Your task to perform on an android device: Go to notification settings Image 0: 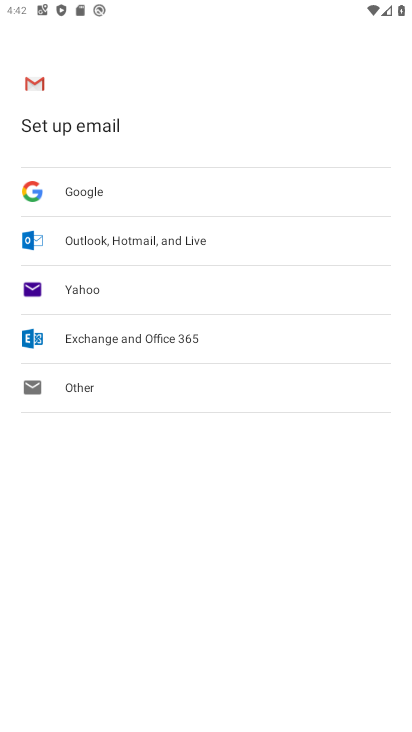
Step 0: press home button
Your task to perform on an android device: Go to notification settings Image 1: 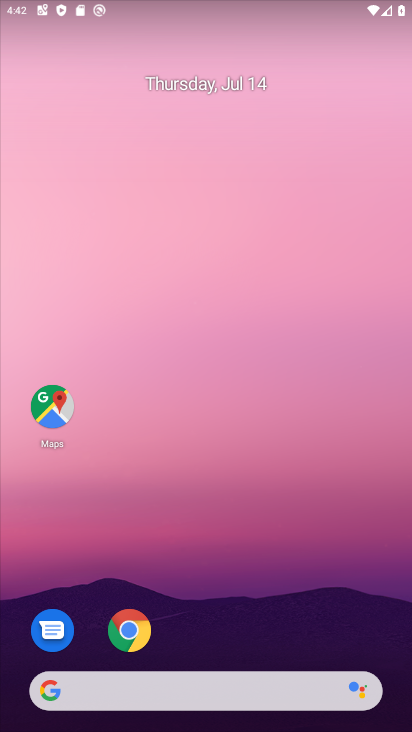
Step 1: drag from (272, 651) to (340, 47)
Your task to perform on an android device: Go to notification settings Image 2: 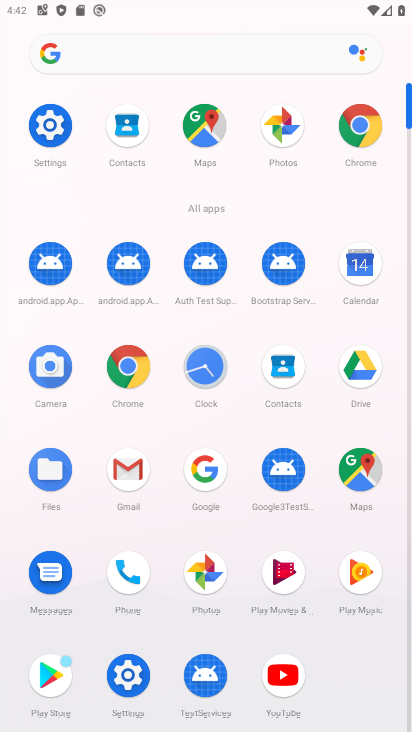
Step 2: click (44, 120)
Your task to perform on an android device: Go to notification settings Image 3: 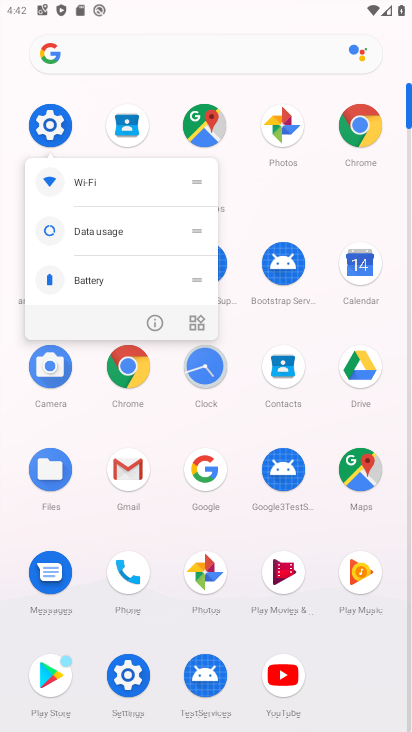
Step 3: click (45, 121)
Your task to perform on an android device: Go to notification settings Image 4: 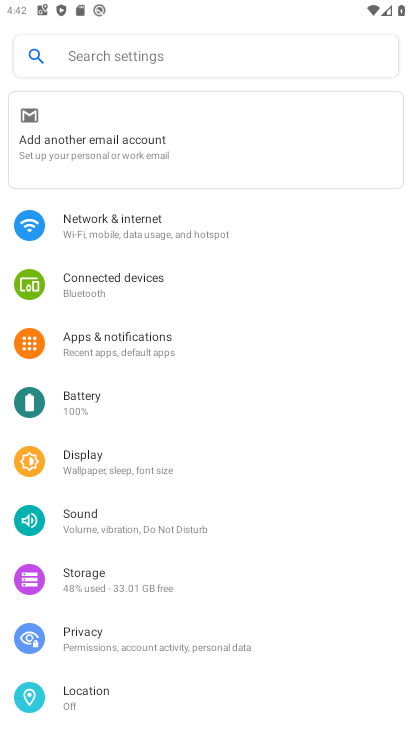
Step 4: click (192, 357)
Your task to perform on an android device: Go to notification settings Image 5: 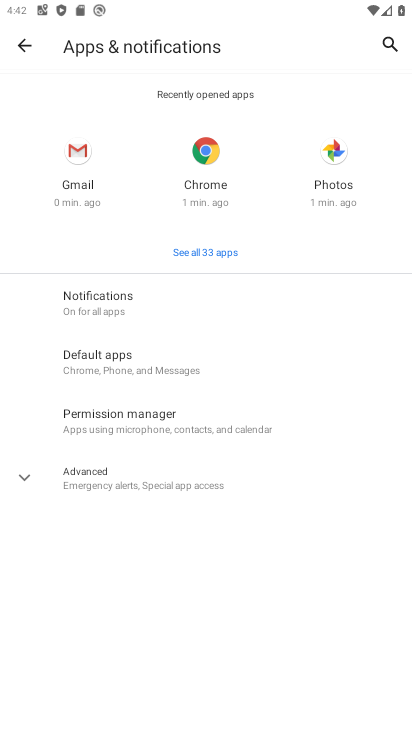
Step 5: task complete